Your task to perform on an android device: snooze an email in the gmail app Image 0: 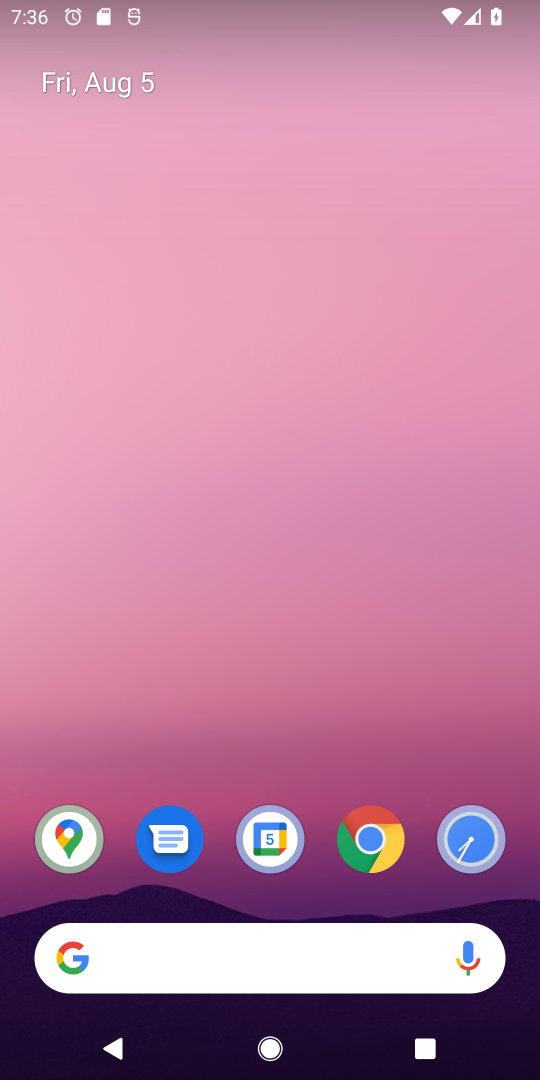
Step 0: drag from (288, 694) to (269, 174)
Your task to perform on an android device: snooze an email in the gmail app Image 1: 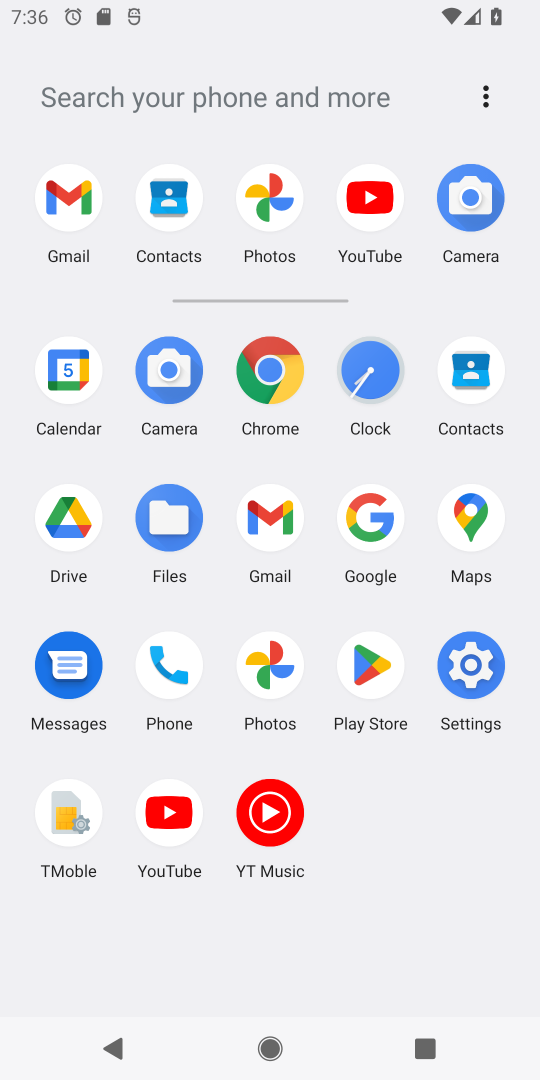
Step 1: click (83, 200)
Your task to perform on an android device: snooze an email in the gmail app Image 2: 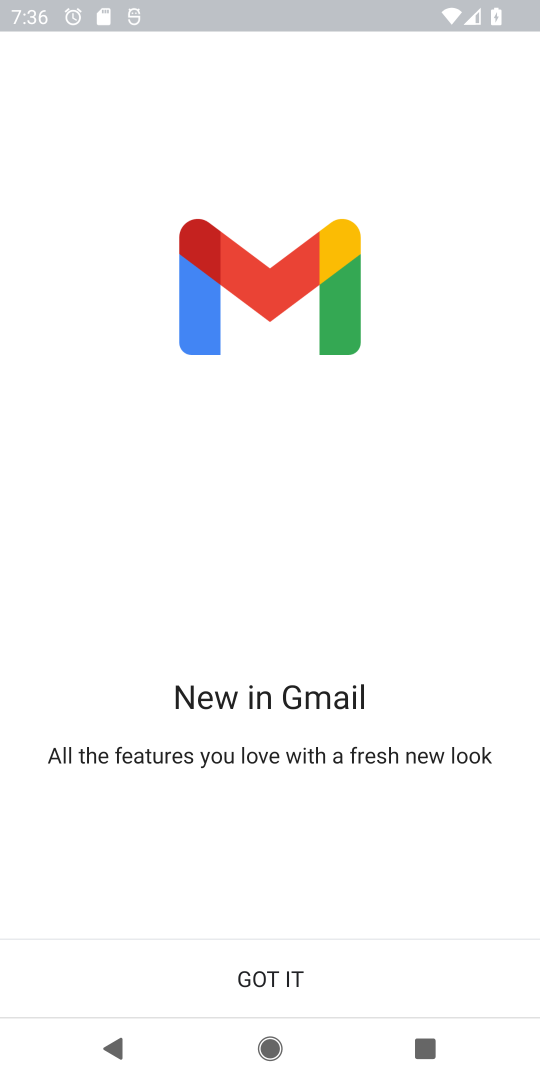
Step 2: click (342, 942)
Your task to perform on an android device: snooze an email in the gmail app Image 3: 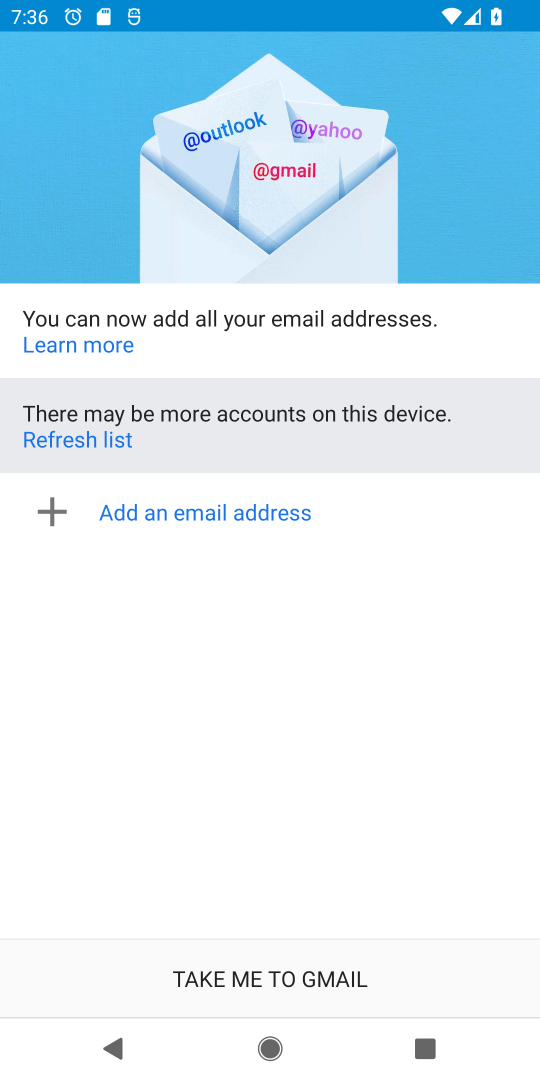
Step 3: click (333, 972)
Your task to perform on an android device: snooze an email in the gmail app Image 4: 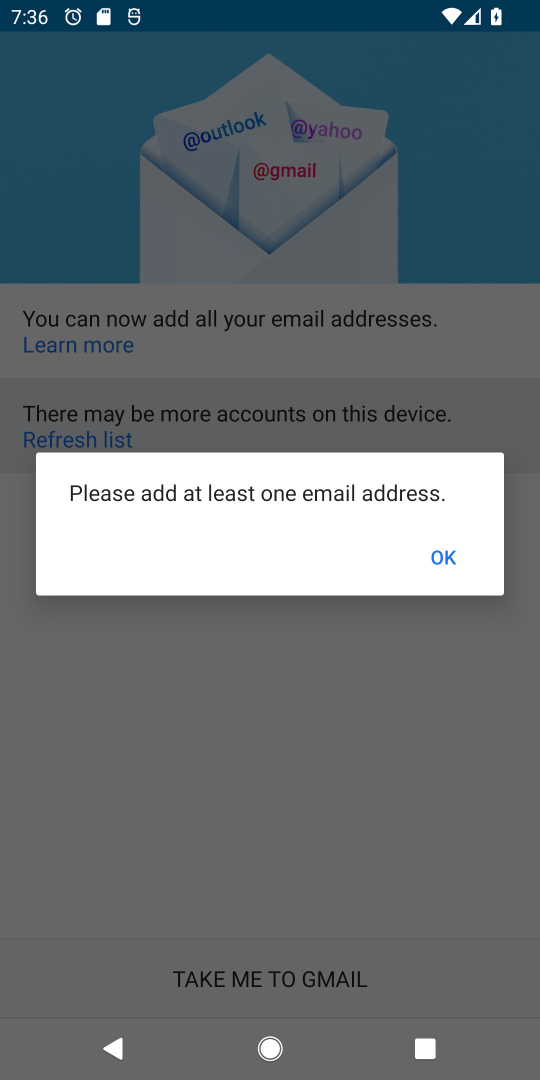
Step 4: click (421, 571)
Your task to perform on an android device: snooze an email in the gmail app Image 5: 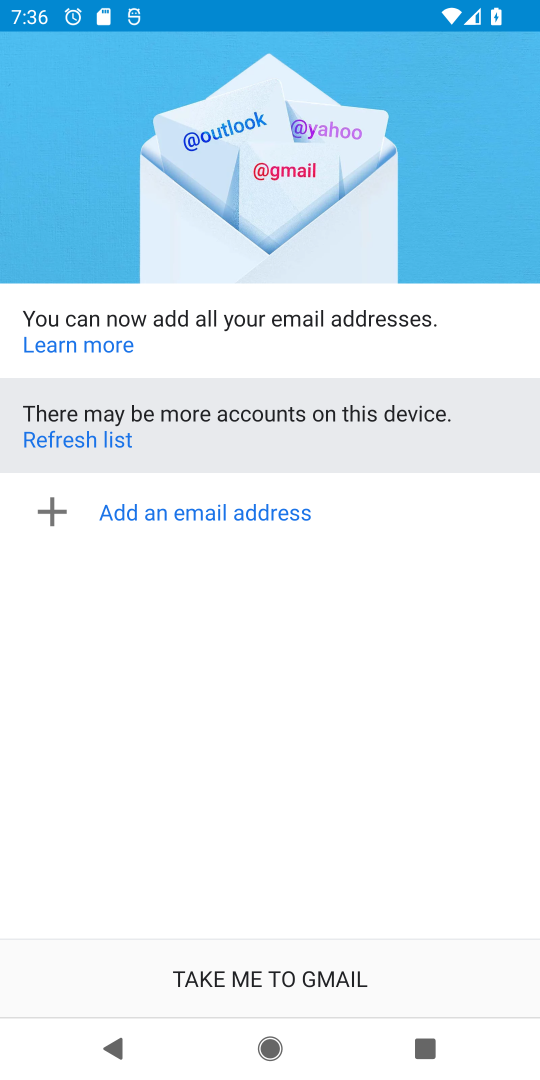
Step 5: task complete